Your task to perform on an android device: Go to accessibility settings Image 0: 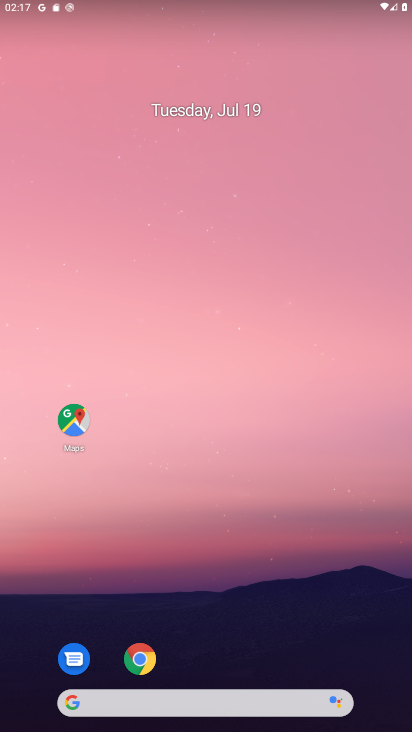
Step 0: drag from (280, 692) to (319, 108)
Your task to perform on an android device: Go to accessibility settings Image 1: 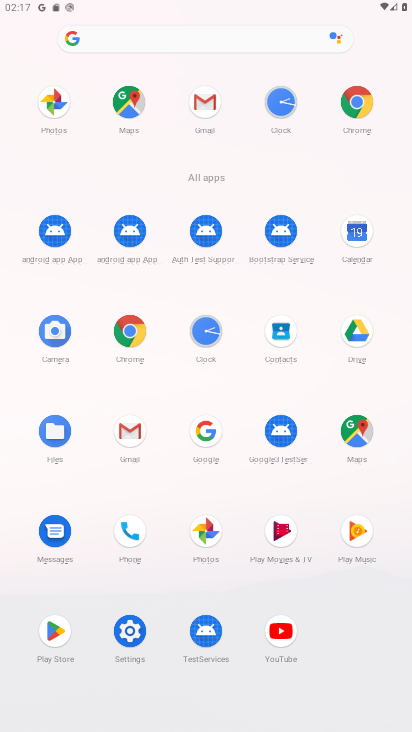
Step 1: click (132, 631)
Your task to perform on an android device: Go to accessibility settings Image 2: 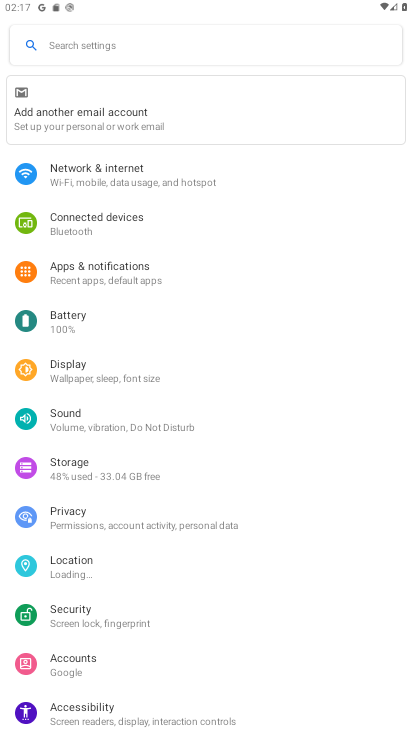
Step 2: click (126, 711)
Your task to perform on an android device: Go to accessibility settings Image 3: 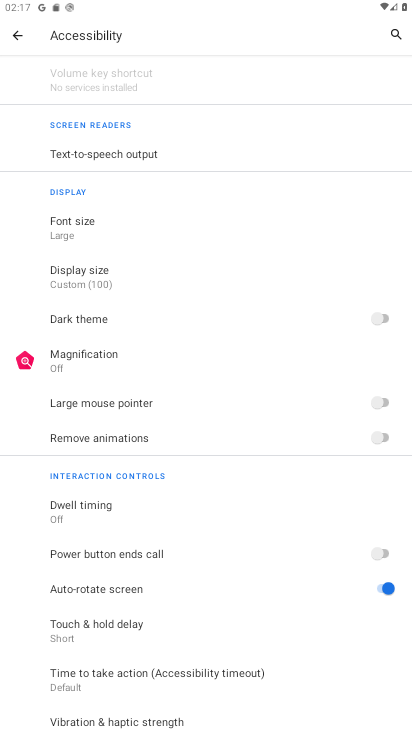
Step 3: task complete